Your task to perform on an android device: Go to network settings Image 0: 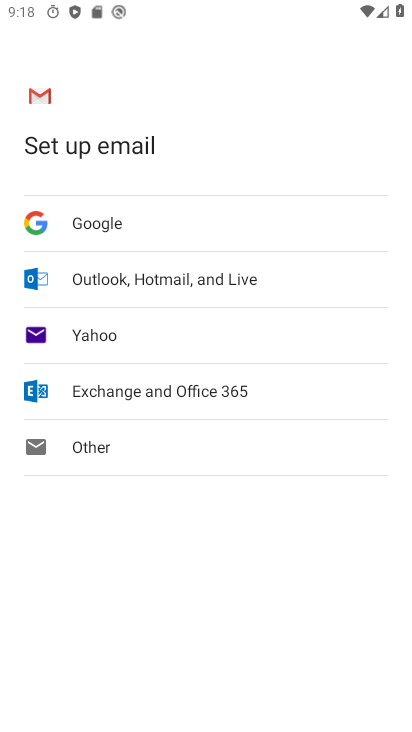
Step 0: press home button
Your task to perform on an android device: Go to network settings Image 1: 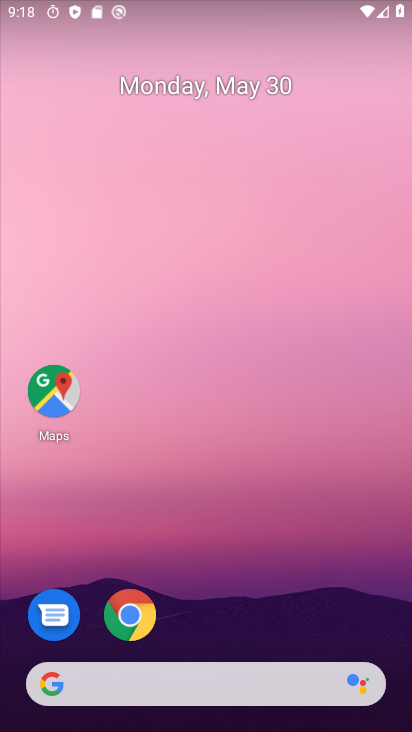
Step 1: drag from (199, 725) to (265, 151)
Your task to perform on an android device: Go to network settings Image 2: 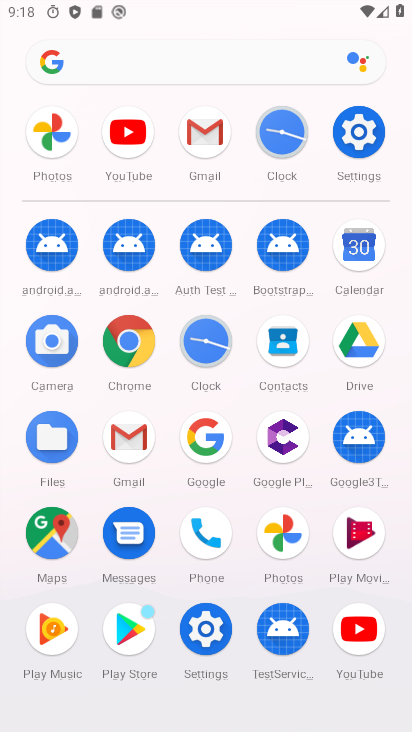
Step 2: click (368, 124)
Your task to perform on an android device: Go to network settings Image 3: 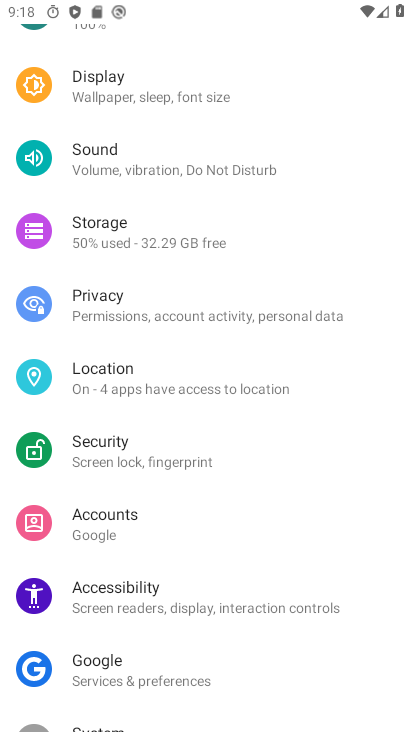
Step 3: drag from (232, 113) to (194, 540)
Your task to perform on an android device: Go to network settings Image 4: 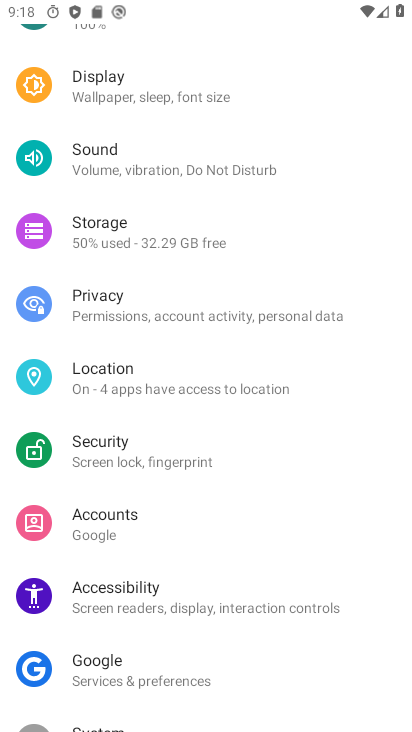
Step 4: drag from (183, 84) to (140, 491)
Your task to perform on an android device: Go to network settings Image 5: 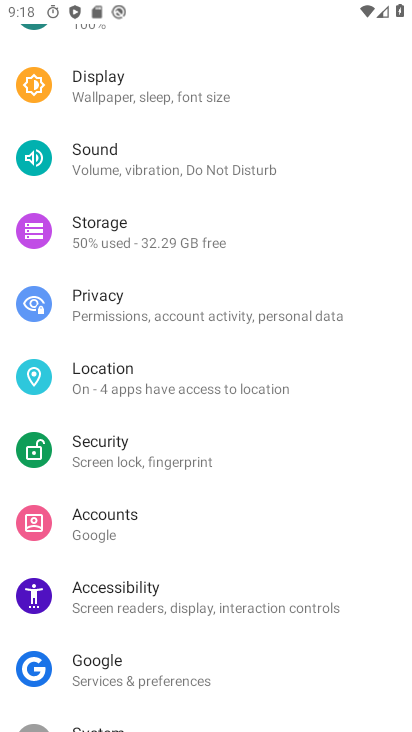
Step 5: drag from (32, 82) to (12, 438)
Your task to perform on an android device: Go to network settings Image 6: 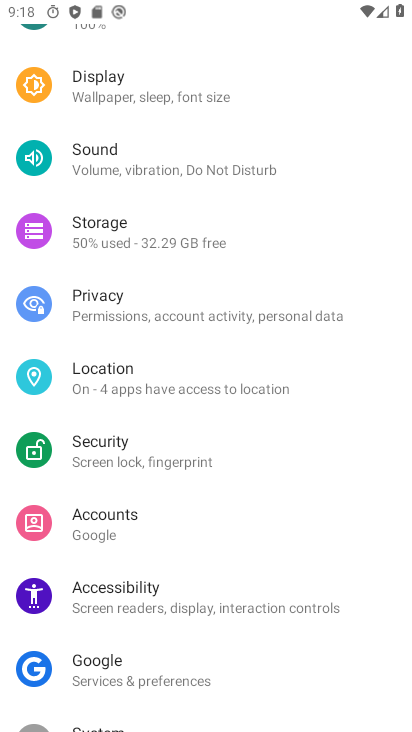
Step 6: drag from (398, 91) to (192, 567)
Your task to perform on an android device: Go to network settings Image 7: 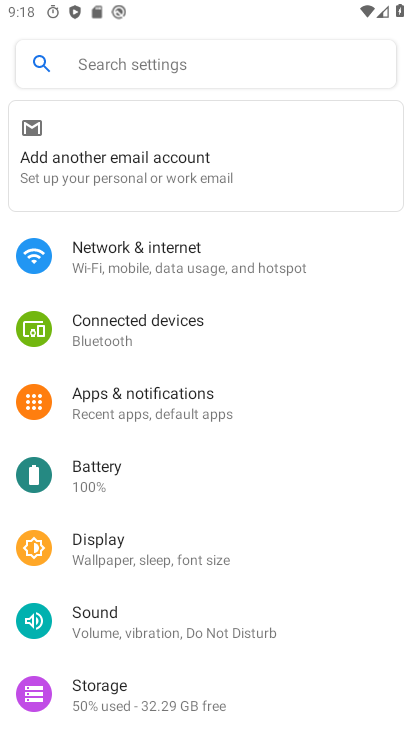
Step 7: click (192, 288)
Your task to perform on an android device: Go to network settings Image 8: 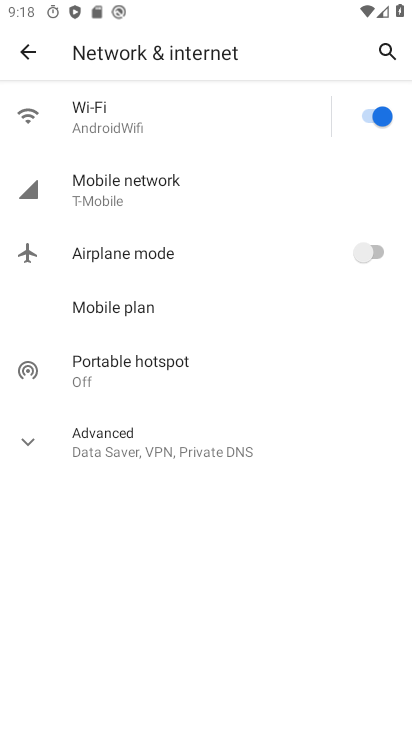
Step 8: click (139, 429)
Your task to perform on an android device: Go to network settings Image 9: 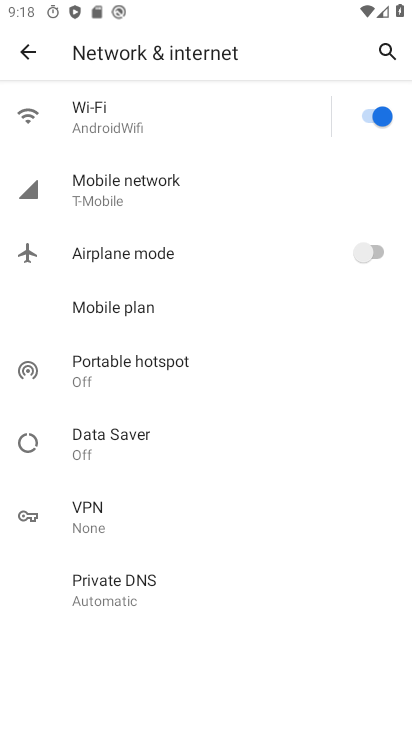
Step 9: click (157, 188)
Your task to perform on an android device: Go to network settings Image 10: 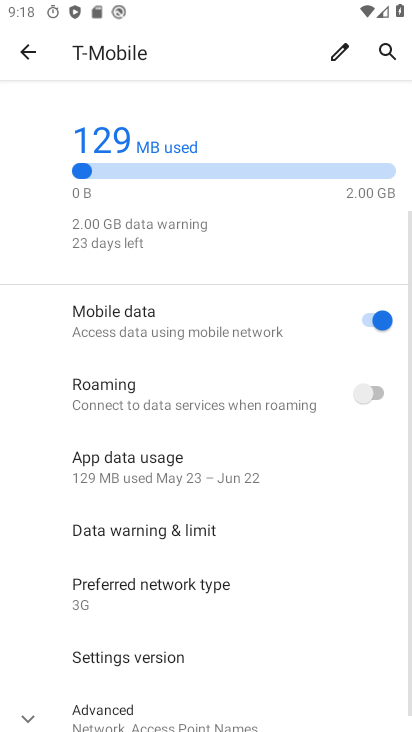
Step 10: click (131, 702)
Your task to perform on an android device: Go to network settings Image 11: 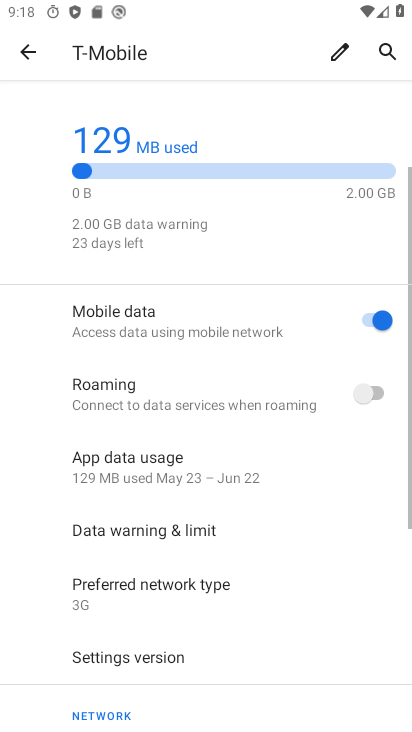
Step 11: task complete